Your task to perform on an android device: toggle sleep mode Image 0: 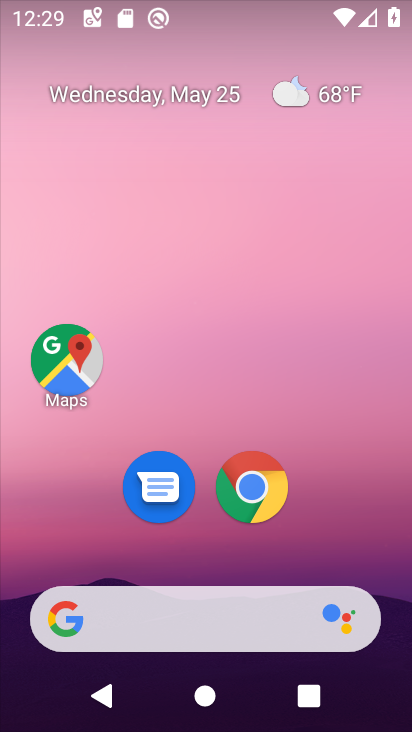
Step 0: drag from (214, 533) to (249, 212)
Your task to perform on an android device: toggle sleep mode Image 1: 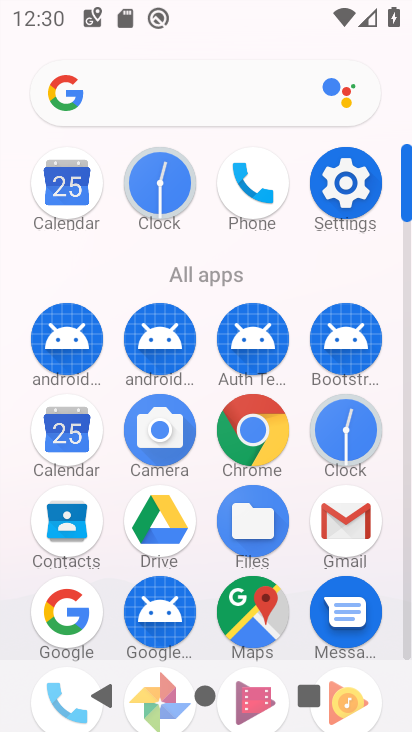
Step 1: drag from (346, 182) to (305, 213)
Your task to perform on an android device: toggle sleep mode Image 2: 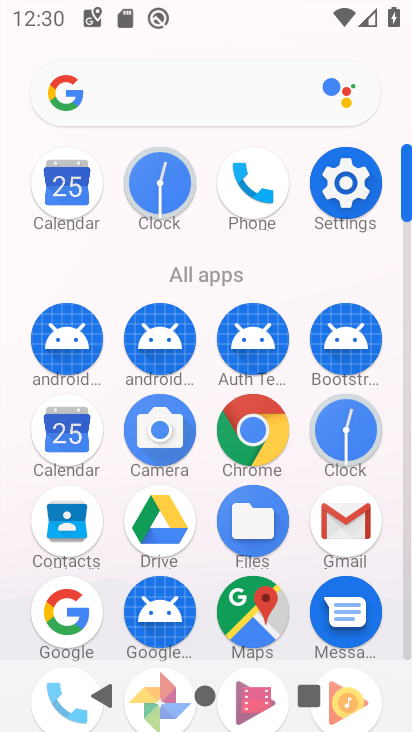
Step 2: click (344, 180)
Your task to perform on an android device: toggle sleep mode Image 3: 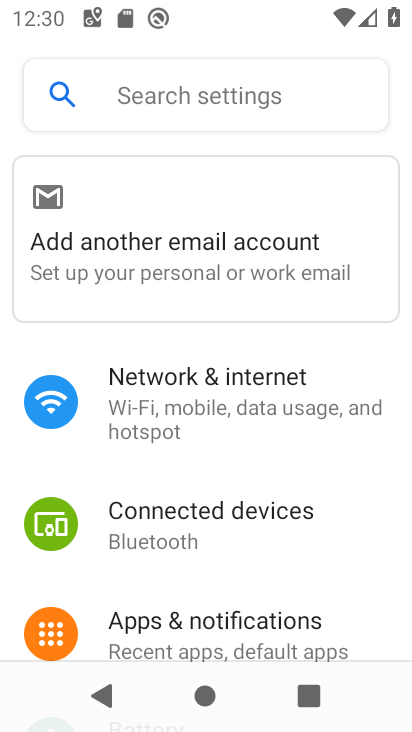
Step 3: click (159, 105)
Your task to perform on an android device: toggle sleep mode Image 4: 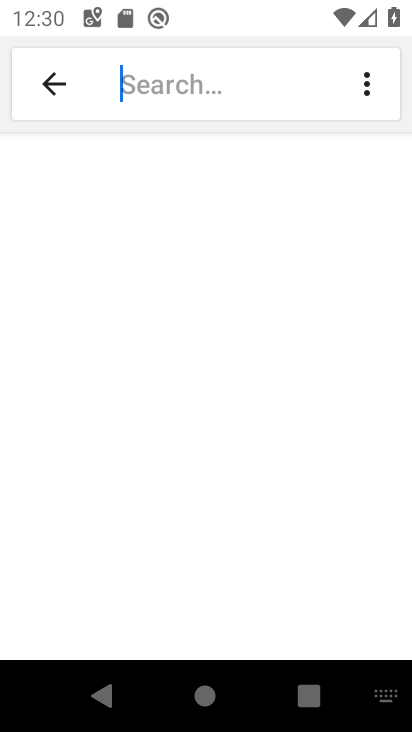
Step 4: type "sleep mode"
Your task to perform on an android device: toggle sleep mode Image 5: 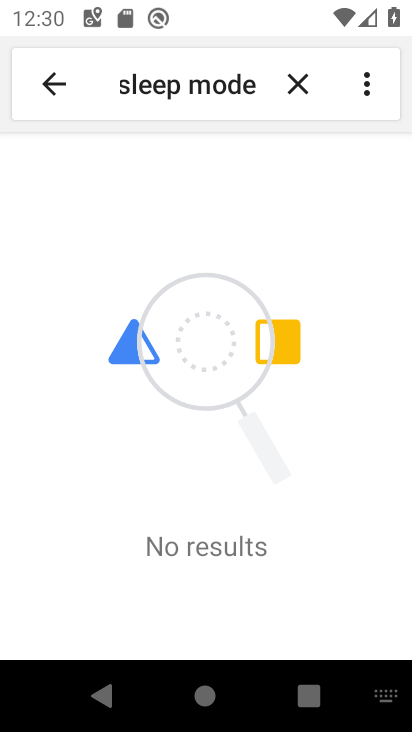
Step 5: task complete